Your task to perform on an android device: What's the weather? Image 0: 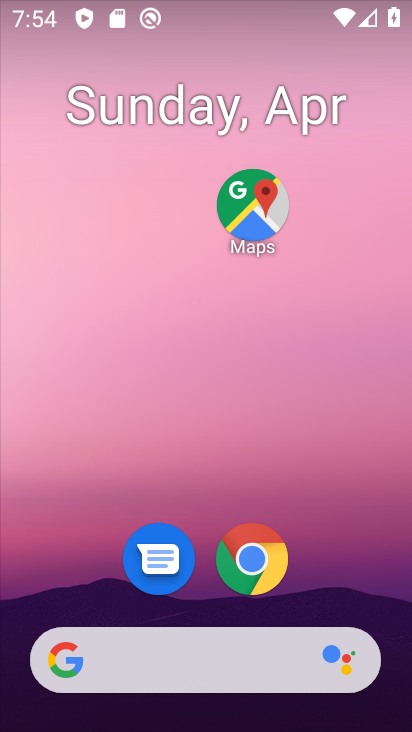
Step 0: click (196, 675)
Your task to perform on an android device: What's the weather? Image 1: 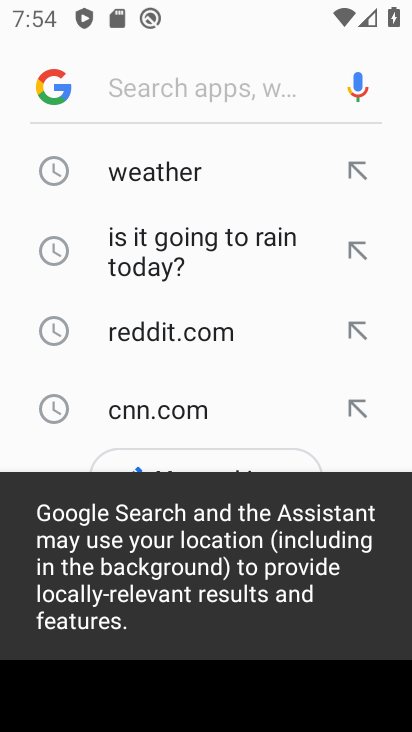
Step 1: click (214, 156)
Your task to perform on an android device: What's the weather? Image 2: 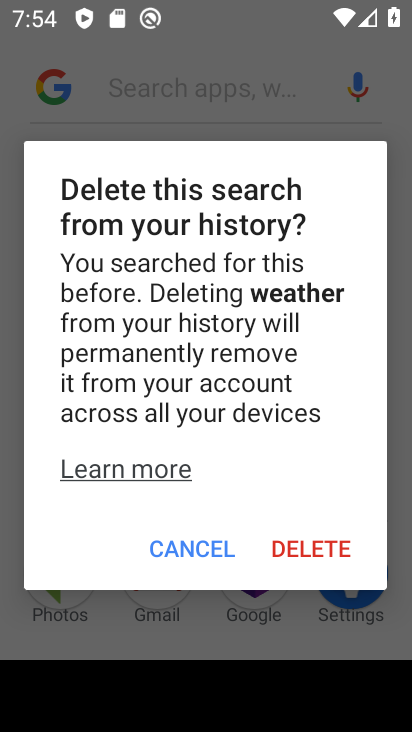
Step 2: click (188, 562)
Your task to perform on an android device: What's the weather? Image 3: 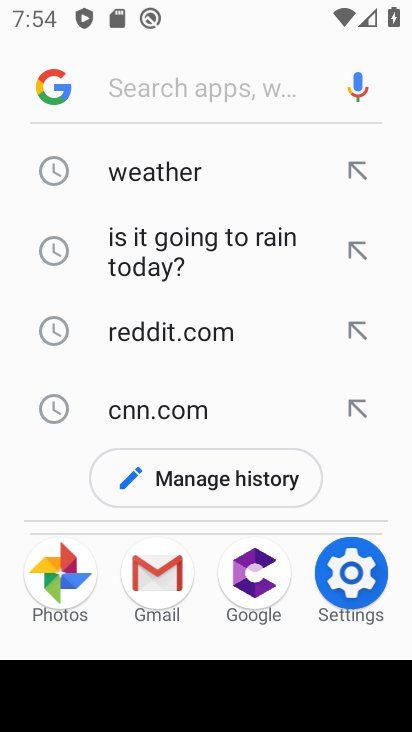
Step 3: click (171, 170)
Your task to perform on an android device: What's the weather? Image 4: 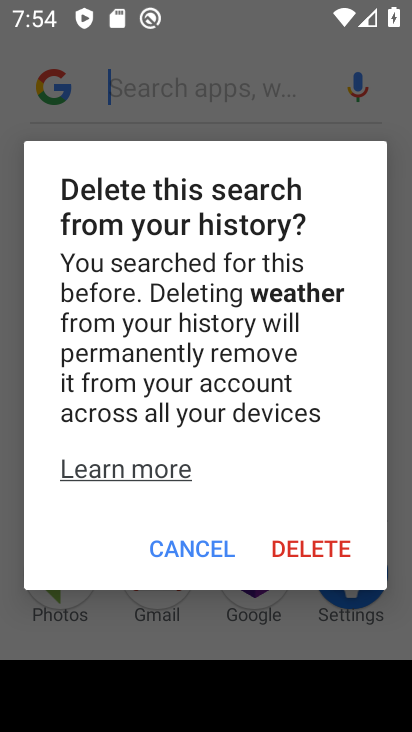
Step 4: click (346, 547)
Your task to perform on an android device: What's the weather? Image 5: 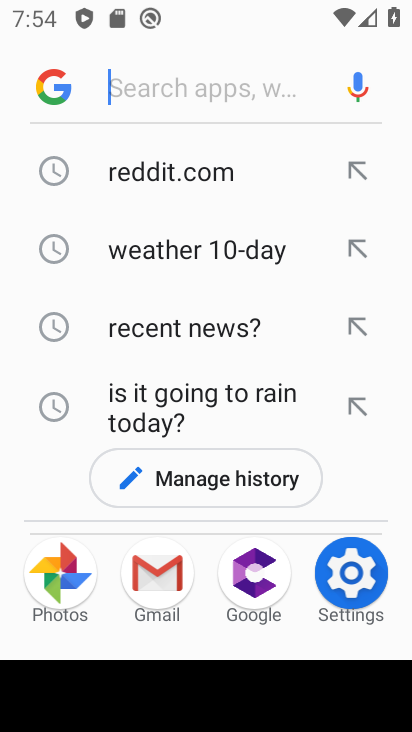
Step 5: click (166, 74)
Your task to perform on an android device: What's the weather? Image 6: 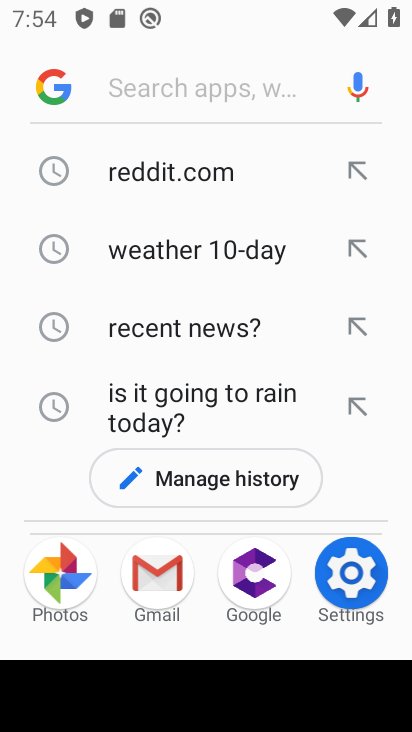
Step 6: type "weather"
Your task to perform on an android device: What's the weather? Image 7: 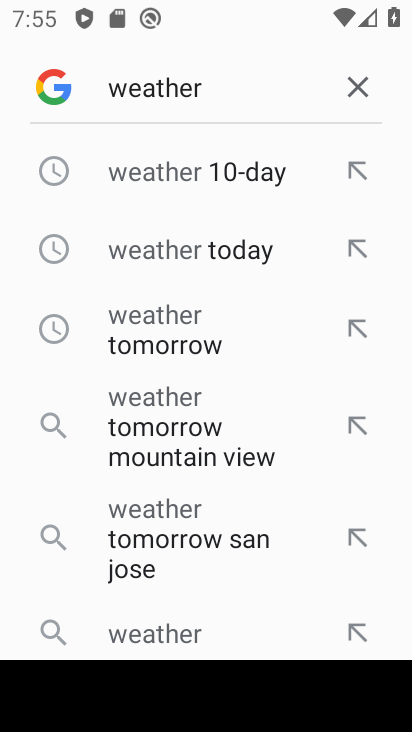
Step 7: click (174, 165)
Your task to perform on an android device: What's the weather? Image 8: 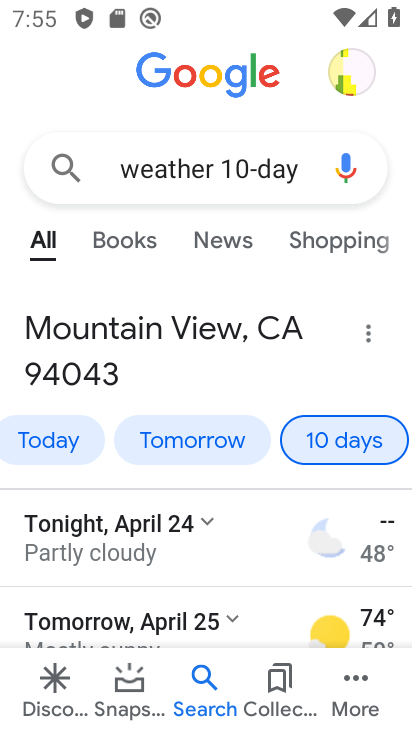
Step 8: task complete